Your task to perform on an android device: check out phone information Image 0: 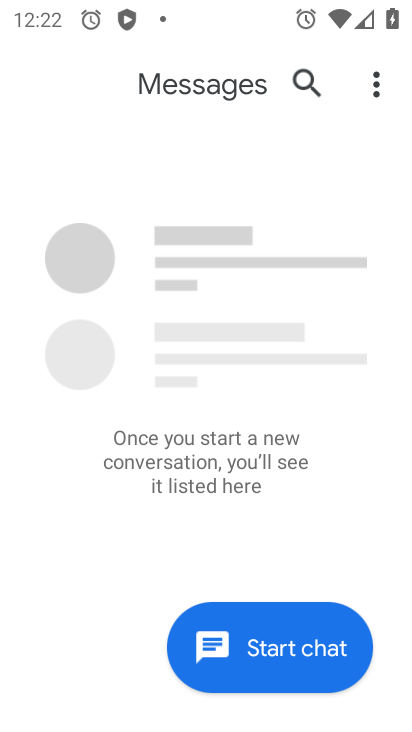
Step 0: press home button
Your task to perform on an android device: check out phone information Image 1: 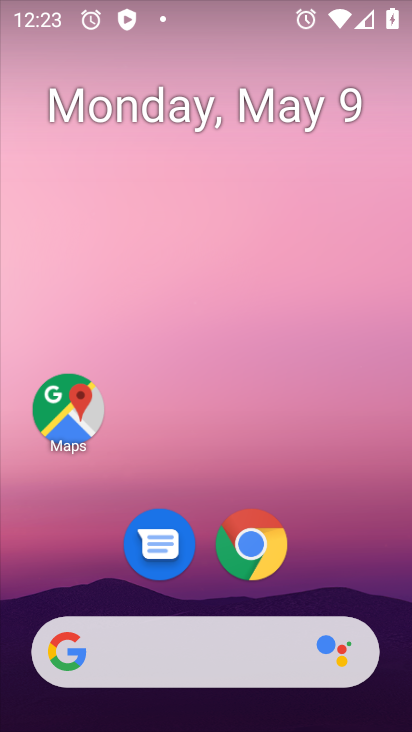
Step 1: drag from (224, 664) to (230, 158)
Your task to perform on an android device: check out phone information Image 2: 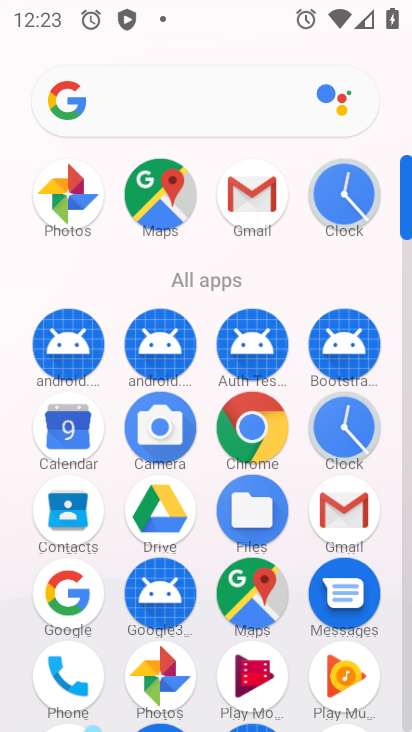
Step 2: drag from (195, 665) to (183, 72)
Your task to perform on an android device: check out phone information Image 3: 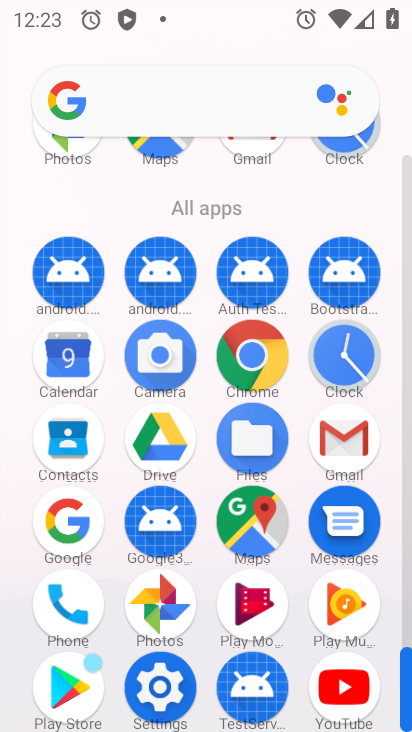
Step 3: click (171, 683)
Your task to perform on an android device: check out phone information Image 4: 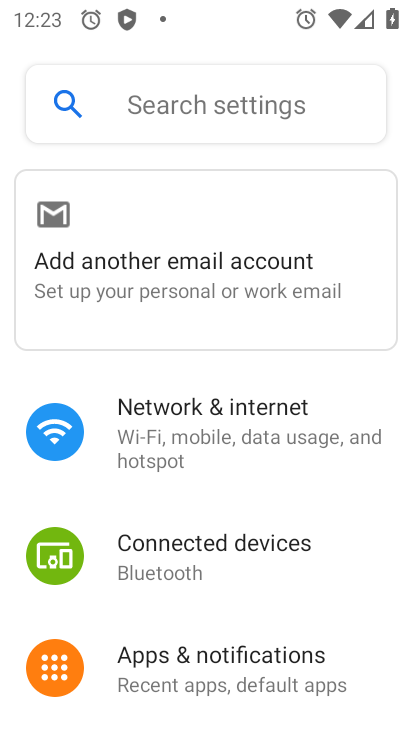
Step 4: drag from (158, 645) to (136, 50)
Your task to perform on an android device: check out phone information Image 5: 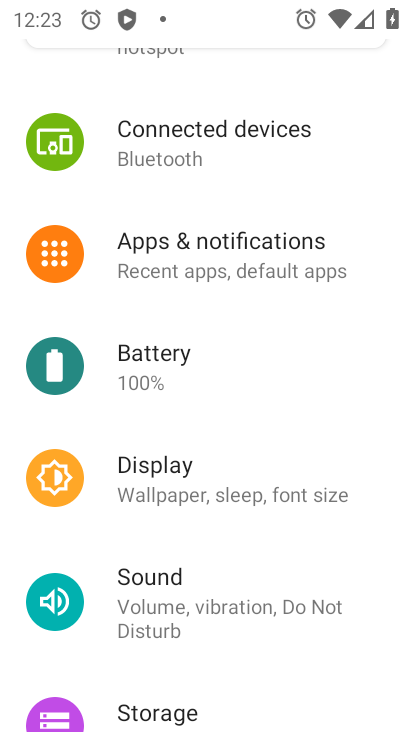
Step 5: drag from (179, 569) to (54, 6)
Your task to perform on an android device: check out phone information Image 6: 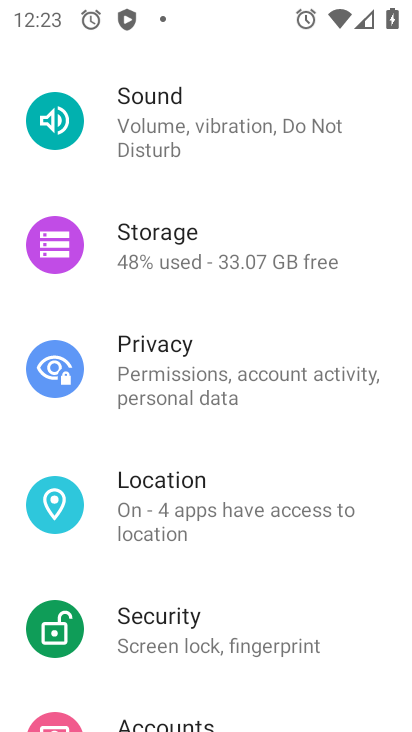
Step 6: drag from (233, 546) to (21, 11)
Your task to perform on an android device: check out phone information Image 7: 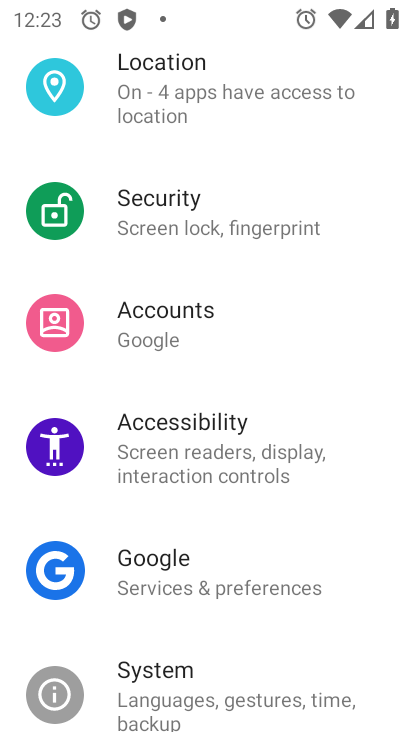
Step 7: drag from (101, 325) to (69, 19)
Your task to perform on an android device: check out phone information Image 8: 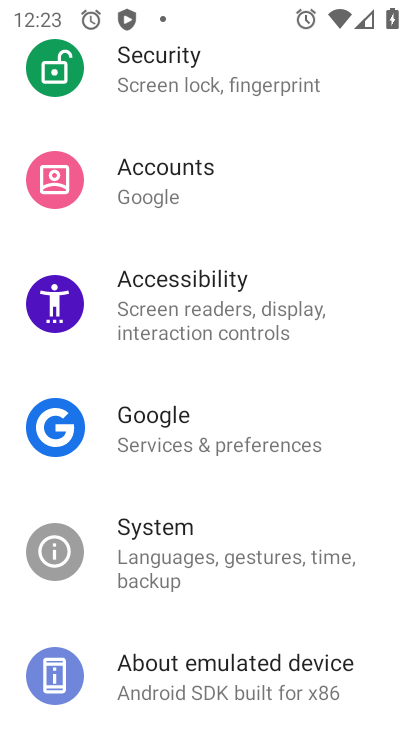
Step 8: click (261, 686)
Your task to perform on an android device: check out phone information Image 9: 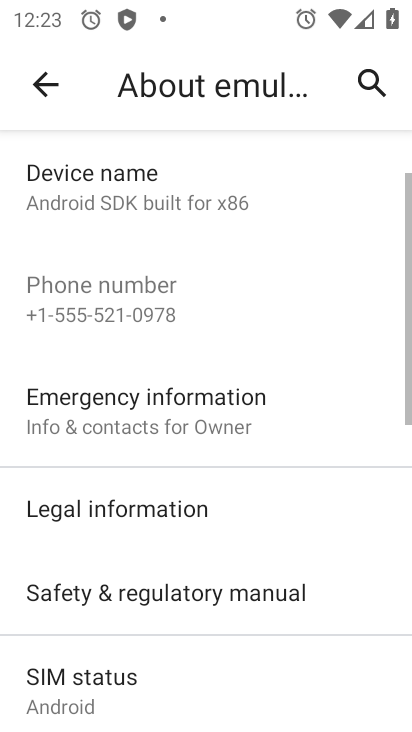
Step 9: task complete